Your task to perform on an android device: set the stopwatch Image 0: 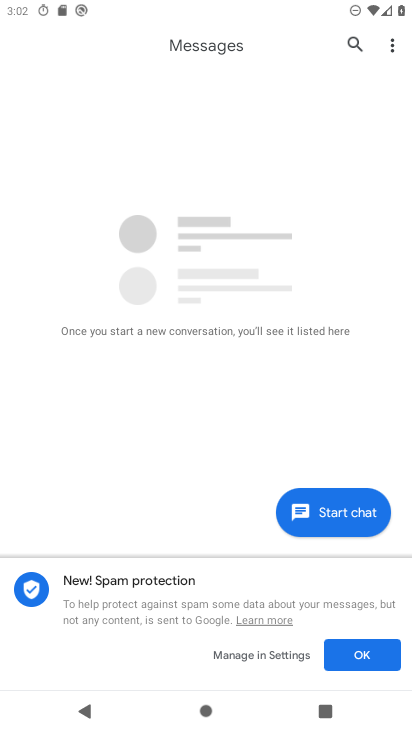
Step 0: press home button
Your task to perform on an android device: set the stopwatch Image 1: 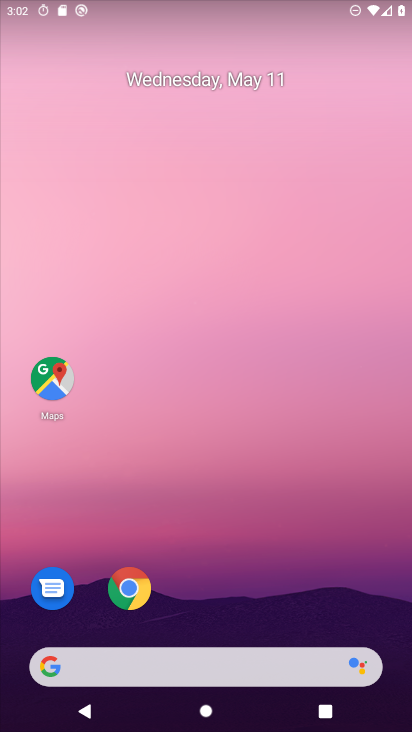
Step 1: drag from (278, 551) to (221, 31)
Your task to perform on an android device: set the stopwatch Image 2: 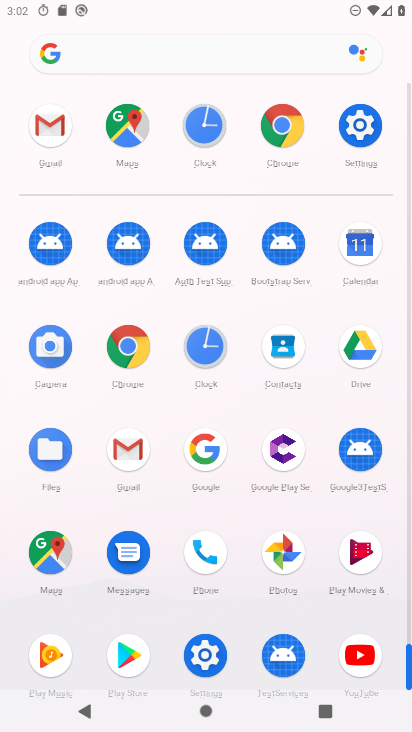
Step 2: click (206, 138)
Your task to perform on an android device: set the stopwatch Image 3: 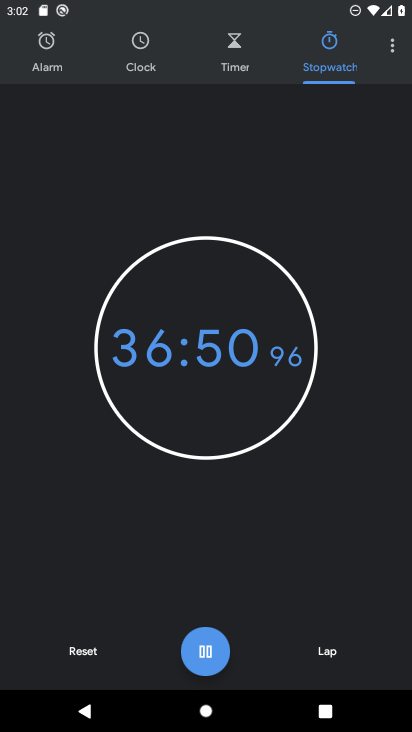
Step 3: click (326, 67)
Your task to perform on an android device: set the stopwatch Image 4: 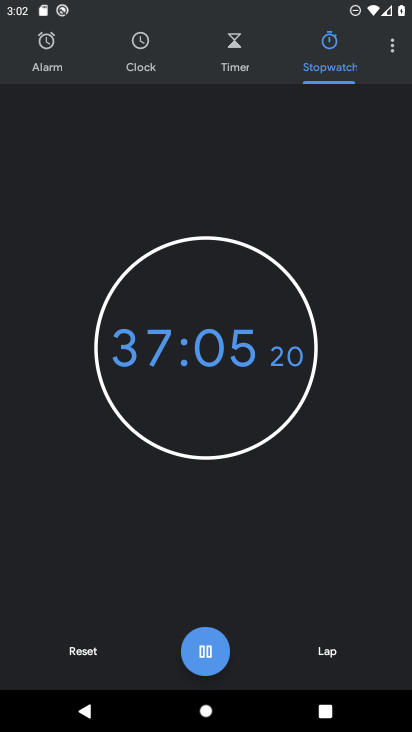
Step 4: task complete